Your task to perform on an android device: Toggle the flashlight Image 0: 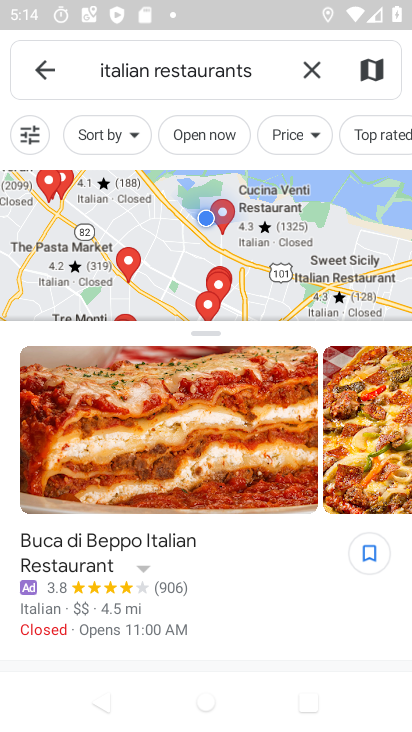
Step 0: press home button
Your task to perform on an android device: Toggle the flashlight Image 1: 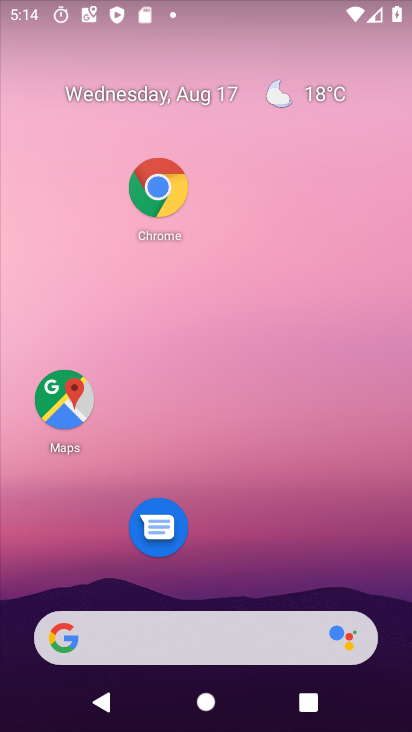
Step 1: drag from (226, 593) to (275, 186)
Your task to perform on an android device: Toggle the flashlight Image 2: 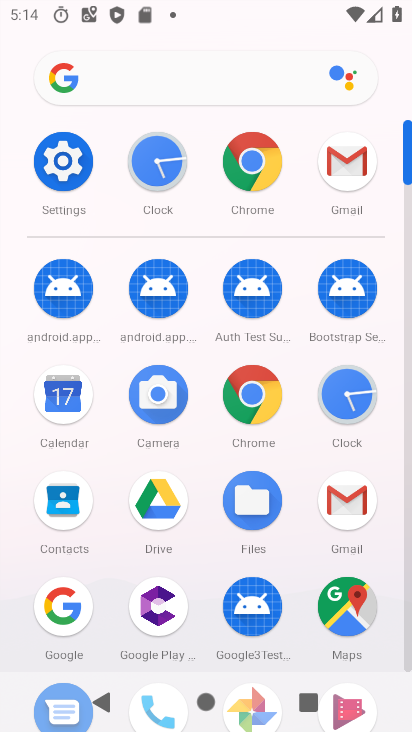
Step 2: click (62, 160)
Your task to perform on an android device: Toggle the flashlight Image 3: 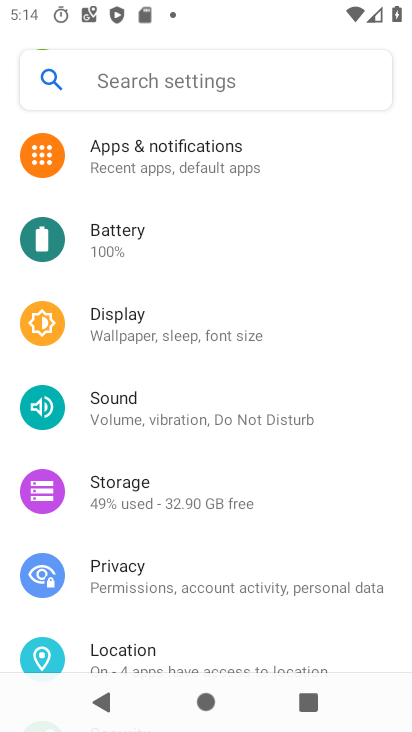
Step 3: task complete